Your task to perform on an android device: What's the weather going to be tomorrow? Image 0: 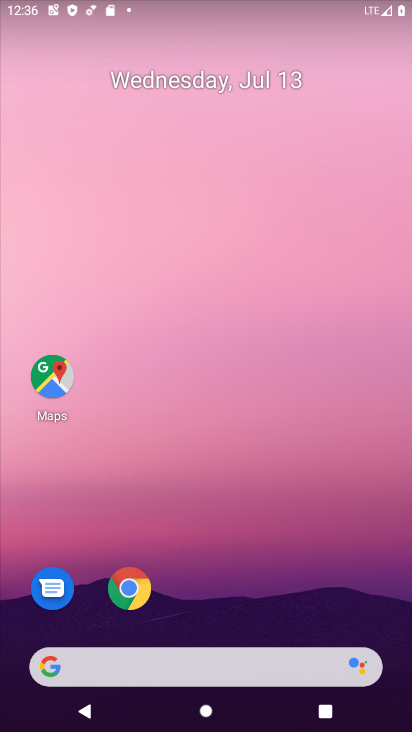
Step 0: drag from (0, 205) to (385, 203)
Your task to perform on an android device: What's the weather going to be tomorrow? Image 1: 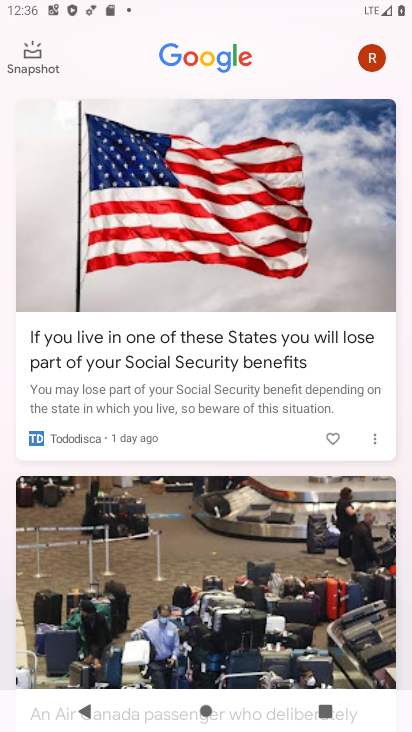
Step 1: task complete